Your task to perform on an android device: Search for Mexican restaurants on Maps Image 0: 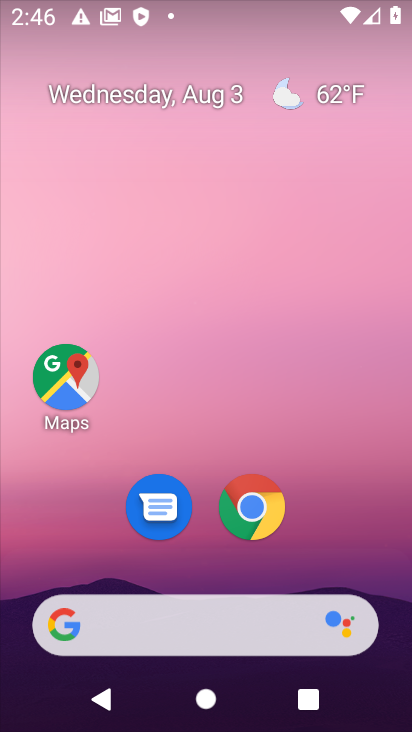
Step 0: click (63, 383)
Your task to perform on an android device: Search for Mexican restaurants on Maps Image 1: 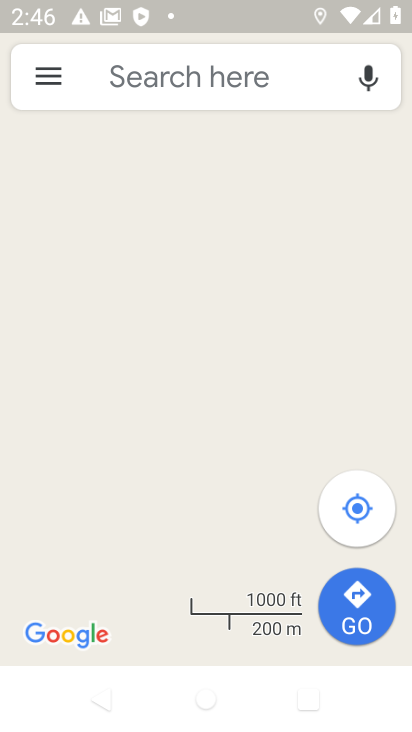
Step 1: click (182, 83)
Your task to perform on an android device: Search for Mexican restaurants on Maps Image 2: 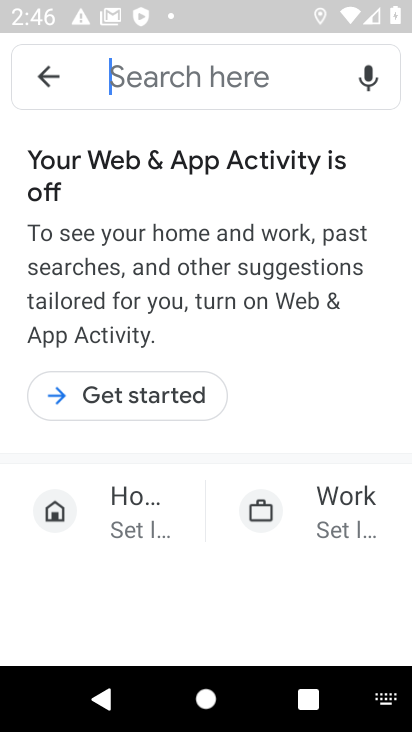
Step 2: click (175, 84)
Your task to perform on an android device: Search for Mexican restaurants on Maps Image 3: 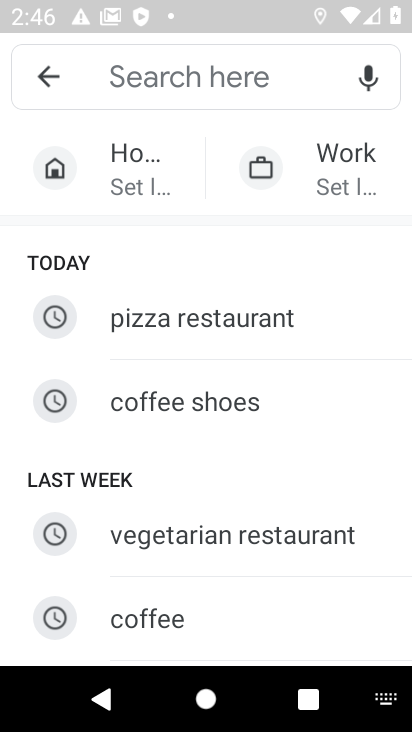
Step 3: drag from (201, 464) to (169, 79)
Your task to perform on an android device: Search for Mexican restaurants on Maps Image 4: 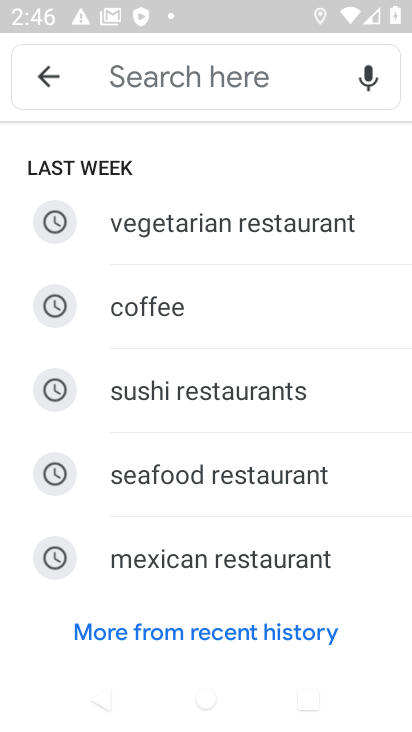
Step 4: click (154, 562)
Your task to perform on an android device: Search for Mexican restaurants on Maps Image 5: 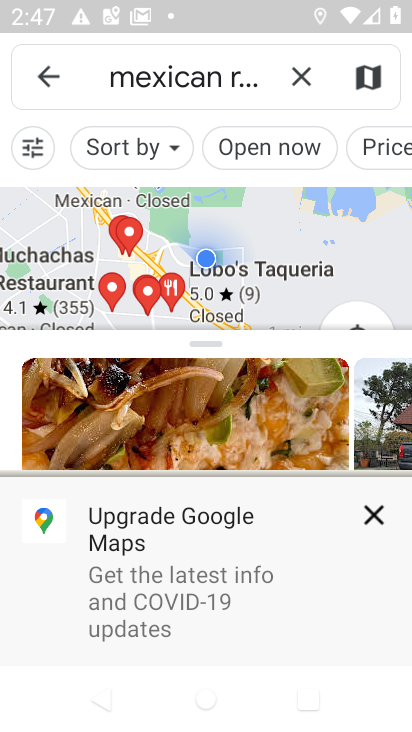
Step 5: click (372, 524)
Your task to perform on an android device: Search for Mexican restaurants on Maps Image 6: 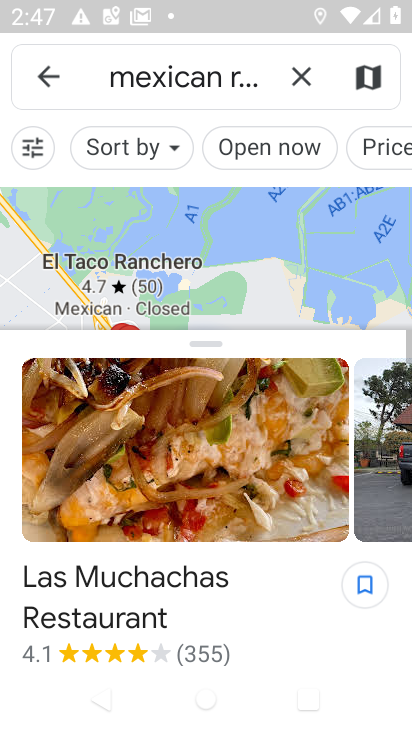
Step 6: task complete